Your task to perform on an android device: delete browsing data in the chrome app Image 0: 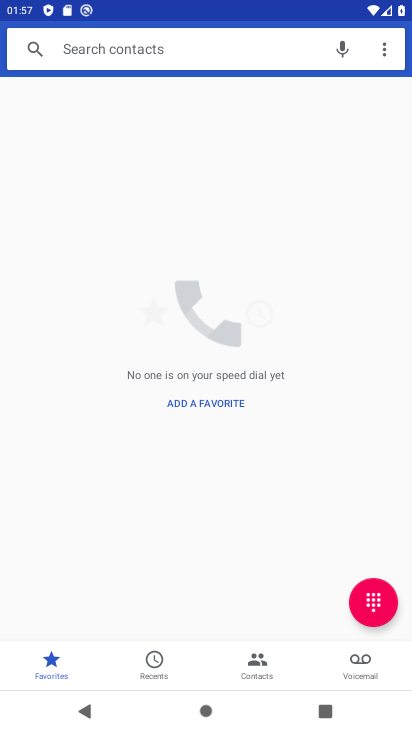
Step 0: press home button
Your task to perform on an android device: delete browsing data in the chrome app Image 1: 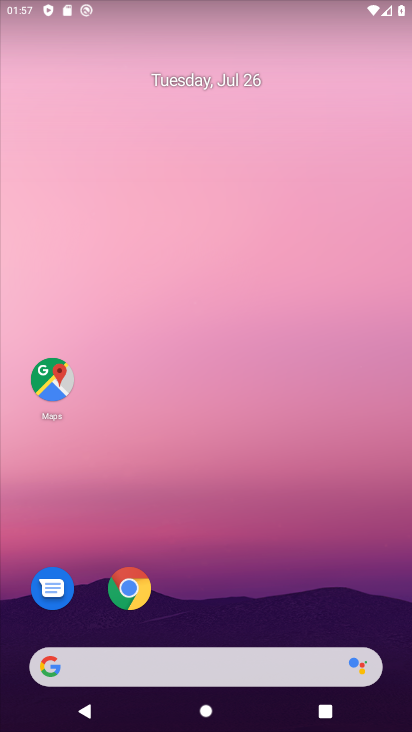
Step 1: drag from (301, 614) to (241, 263)
Your task to perform on an android device: delete browsing data in the chrome app Image 2: 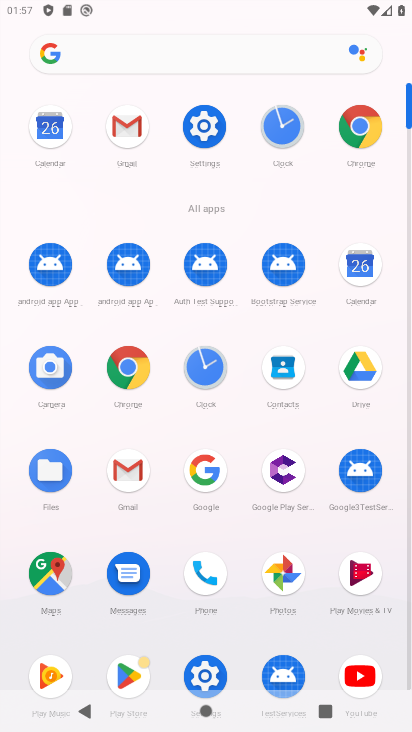
Step 2: click (363, 129)
Your task to perform on an android device: delete browsing data in the chrome app Image 3: 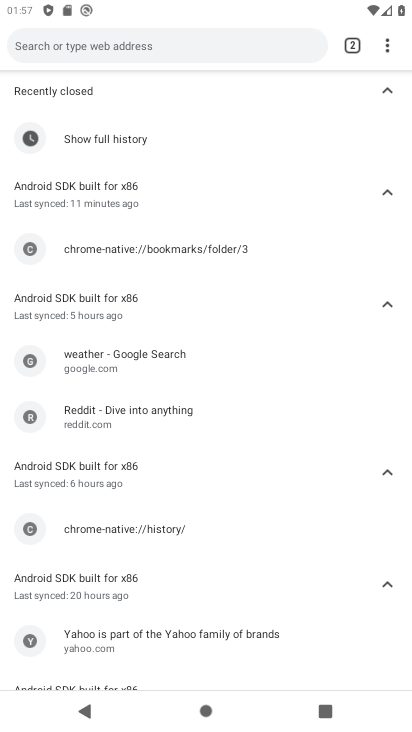
Step 3: click (395, 43)
Your task to perform on an android device: delete browsing data in the chrome app Image 4: 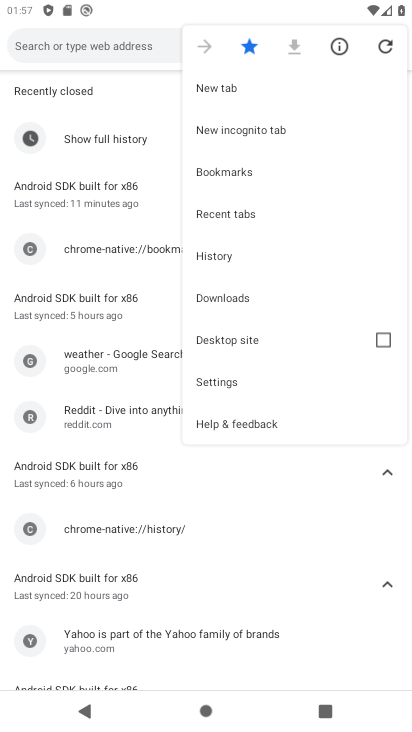
Step 4: click (238, 256)
Your task to perform on an android device: delete browsing data in the chrome app Image 5: 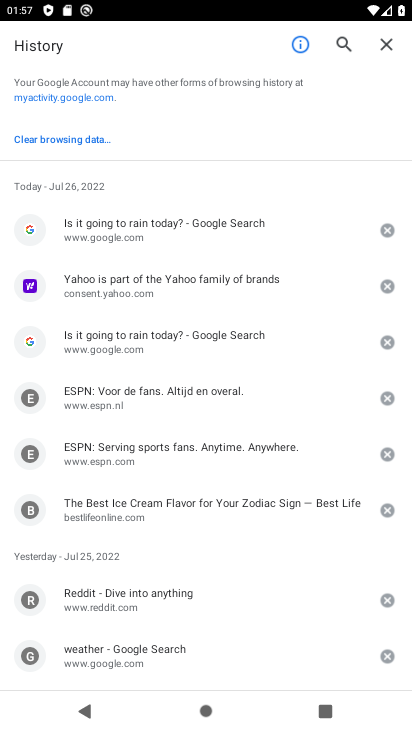
Step 5: click (95, 136)
Your task to perform on an android device: delete browsing data in the chrome app Image 6: 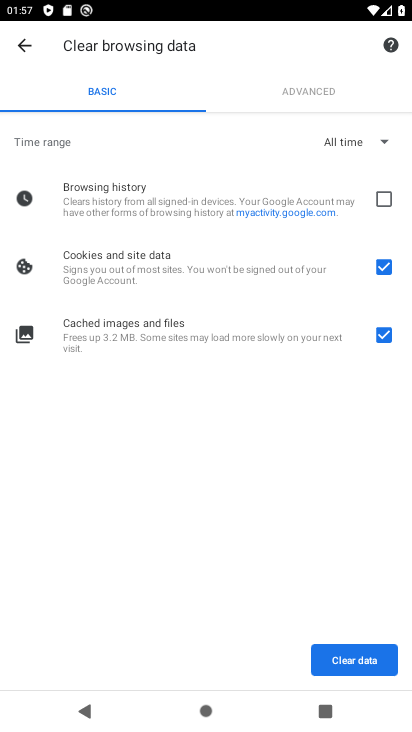
Step 6: click (378, 197)
Your task to perform on an android device: delete browsing data in the chrome app Image 7: 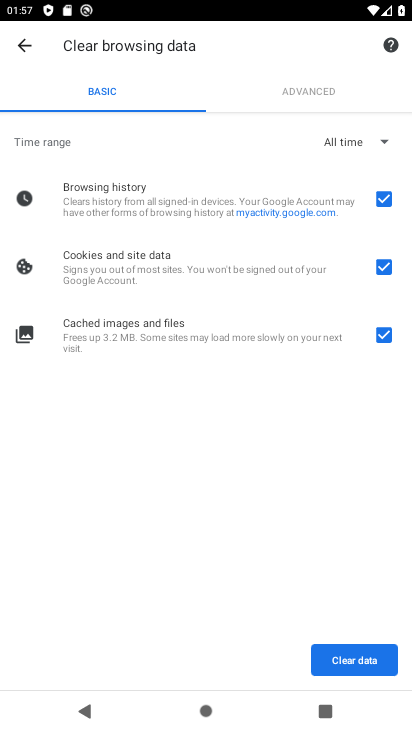
Step 7: click (375, 657)
Your task to perform on an android device: delete browsing data in the chrome app Image 8: 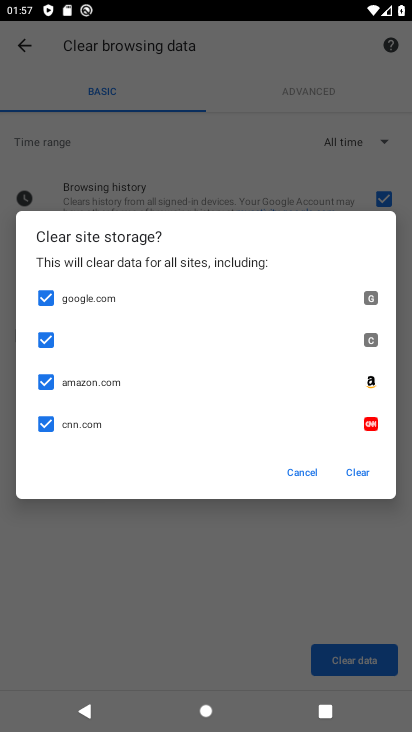
Step 8: click (352, 473)
Your task to perform on an android device: delete browsing data in the chrome app Image 9: 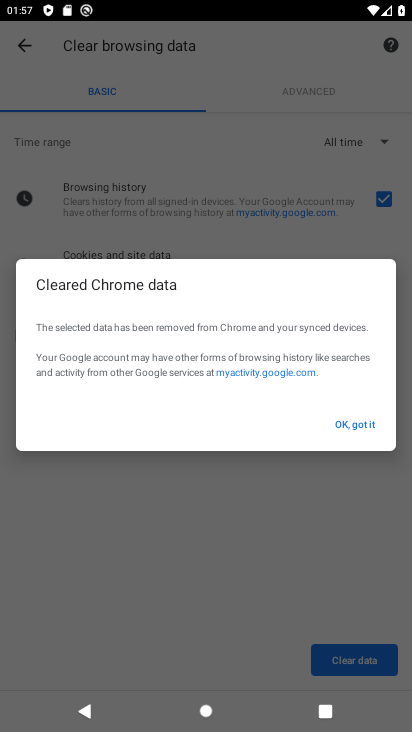
Step 9: click (359, 425)
Your task to perform on an android device: delete browsing data in the chrome app Image 10: 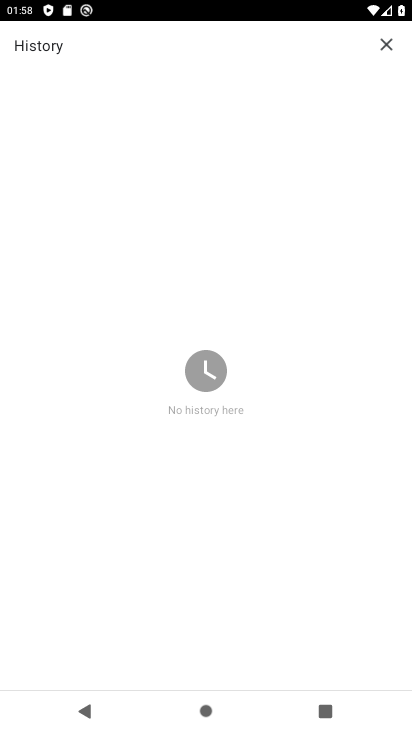
Step 10: task complete